Your task to perform on an android device: allow cookies in the chrome app Image 0: 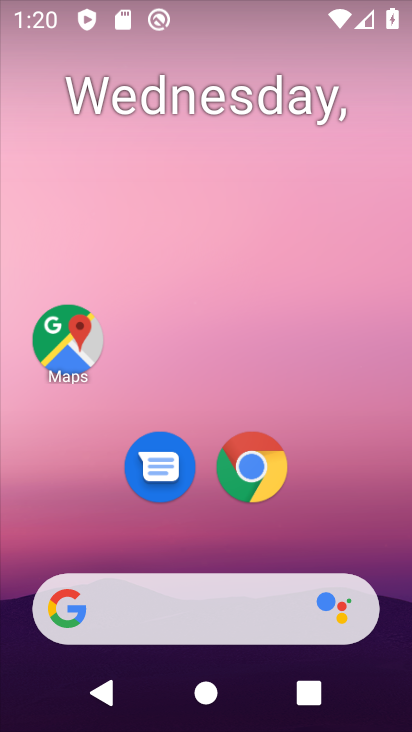
Step 0: click (247, 456)
Your task to perform on an android device: allow cookies in the chrome app Image 1: 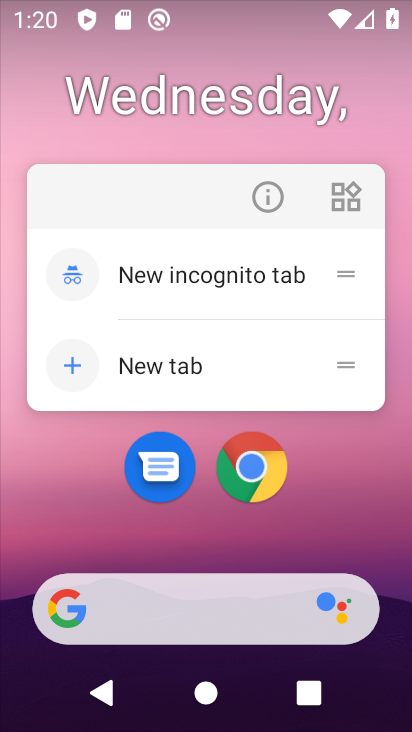
Step 1: click (264, 475)
Your task to perform on an android device: allow cookies in the chrome app Image 2: 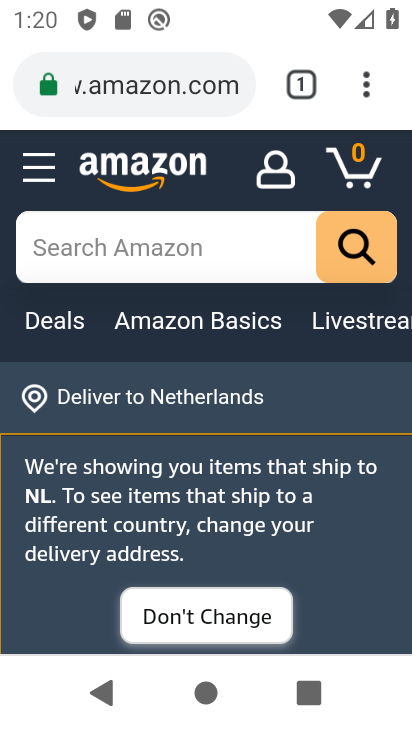
Step 2: click (363, 79)
Your task to perform on an android device: allow cookies in the chrome app Image 3: 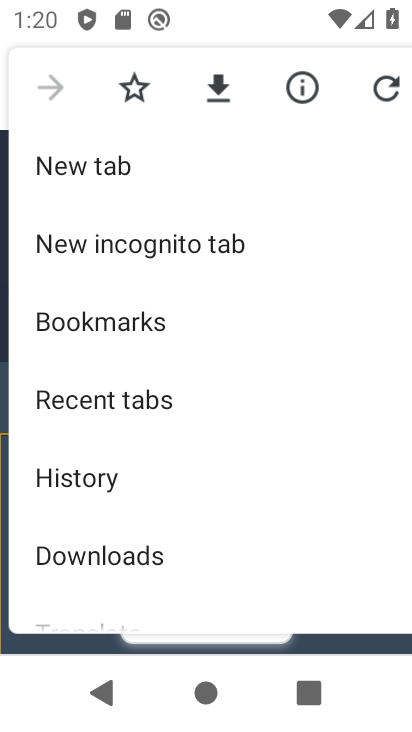
Step 3: drag from (221, 540) to (225, 178)
Your task to perform on an android device: allow cookies in the chrome app Image 4: 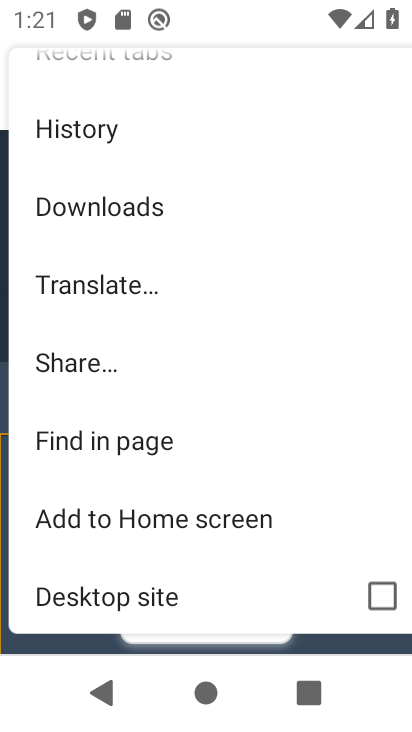
Step 4: drag from (185, 510) to (166, 183)
Your task to perform on an android device: allow cookies in the chrome app Image 5: 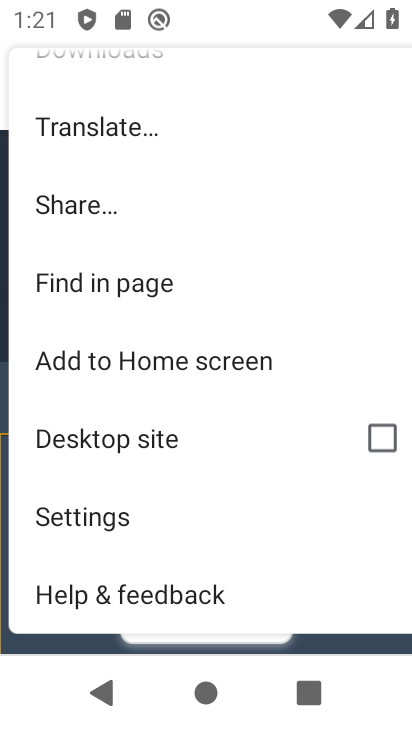
Step 5: click (116, 520)
Your task to perform on an android device: allow cookies in the chrome app Image 6: 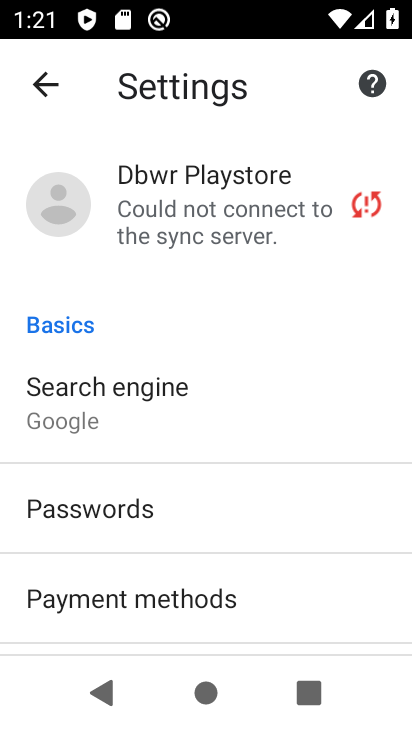
Step 6: drag from (166, 518) to (172, 172)
Your task to perform on an android device: allow cookies in the chrome app Image 7: 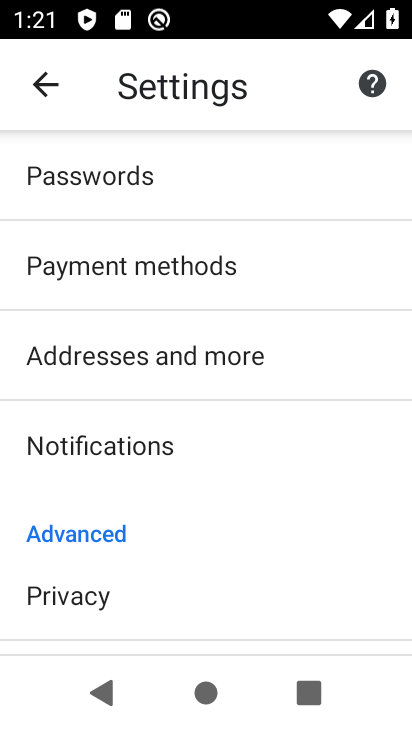
Step 7: drag from (180, 581) to (179, 250)
Your task to perform on an android device: allow cookies in the chrome app Image 8: 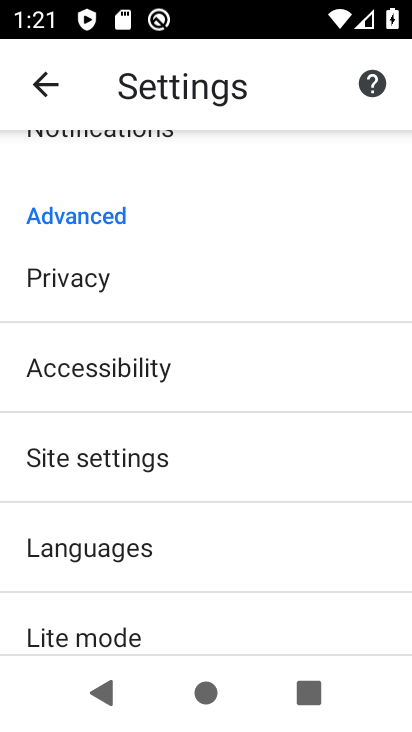
Step 8: click (181, 459)
Your task to perform on an android device: allow cookies in the chrome app Image 9: 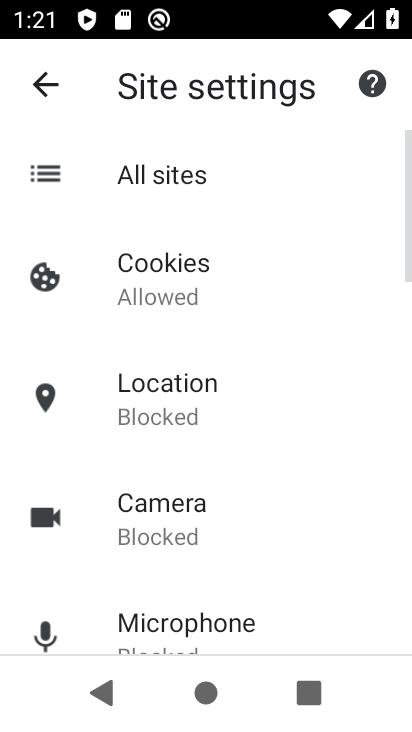
Step 9: click (166, 290)
Your task to perform on an android device: allow cookies in the chrome app Image 10: 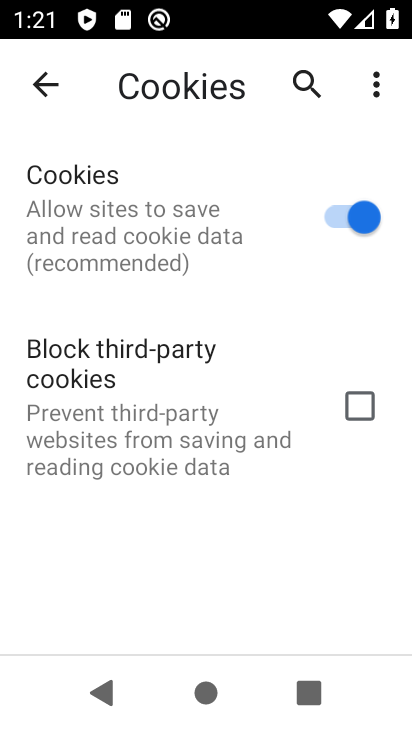
Step 10: task complete